Your task to perform on an android device: Go to Reddit.com Image 0: 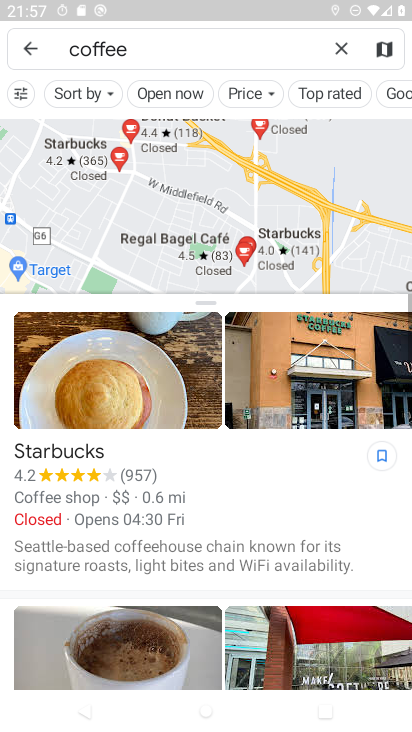
Step 0: drag from (324, 574) to (328, 483)
Your task to perform on an android device: Go to Reddit.com Image 1: 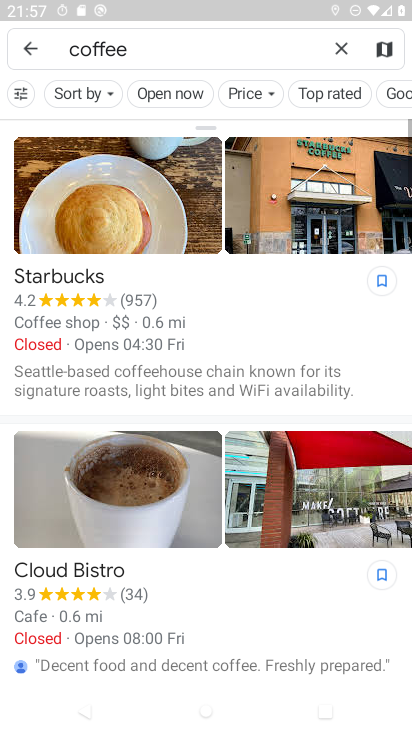
Step 1: press home button
Your task to perform on an android device: Go to Reddit.com Image 2: 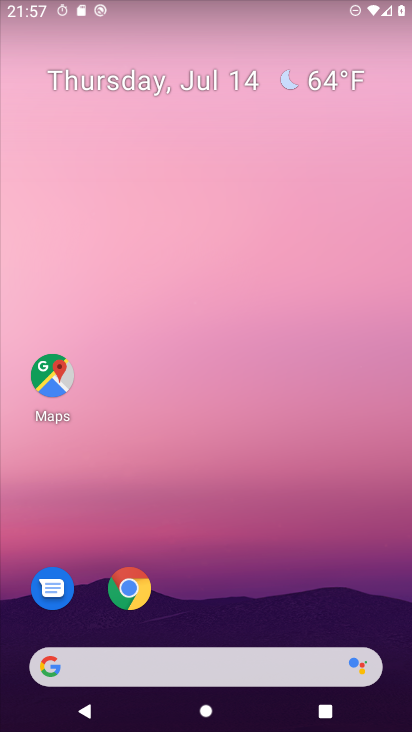
Step 2: drag from (354, 590) to (339, 110)
Your task to perform on an android device: Go to Reddit.com Image 3: 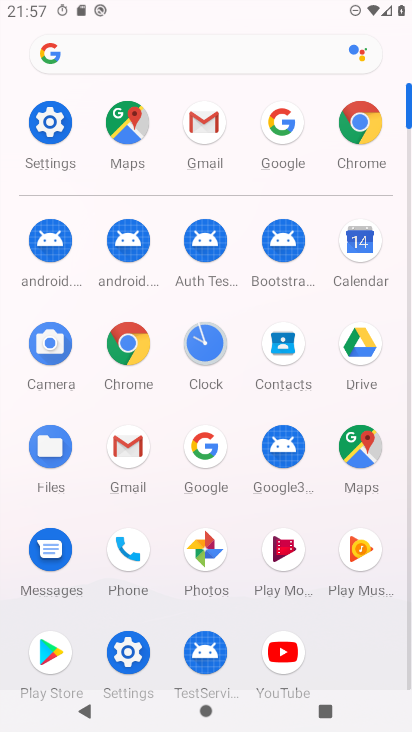
Step 3: click (362, 133)
Your task to perform on an android device: Go to Reddit.com Image 4: 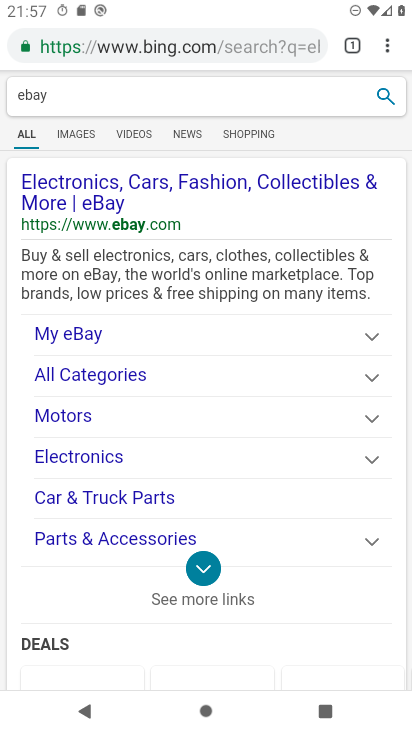
Step 4: click (260, 49)
Your task to perform on an android device: Go to Reddit.com Image 5: 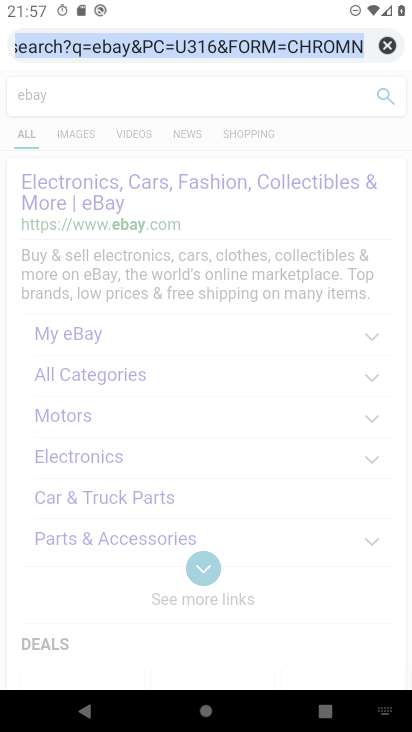
Step 5: type "reddit.com"
Your task to perform on an android device: Go to Reddit.com Image 6: 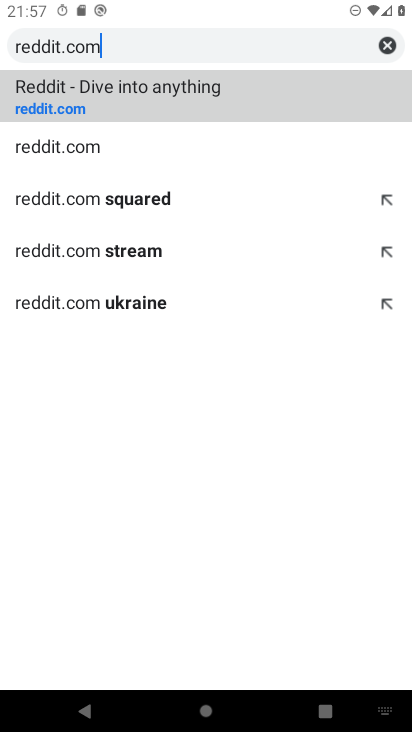
Step 6: click (224, 84)
Your task to perform on an android device: Go to Reddit.com Image 7: 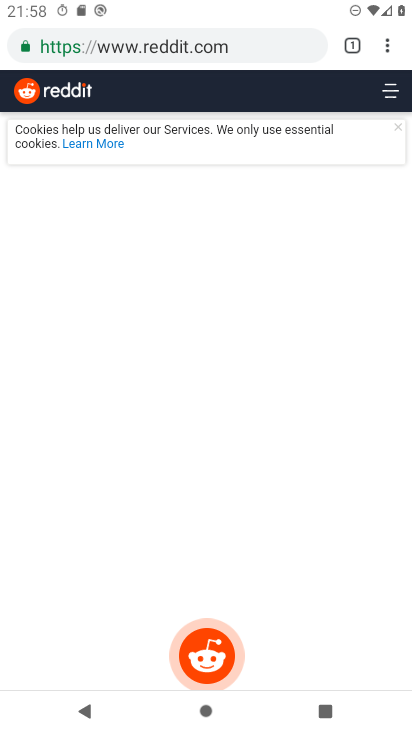
Step 7: task complete